Your task to perform on an android device: Open calendar and show me the third week of next month Image 0: 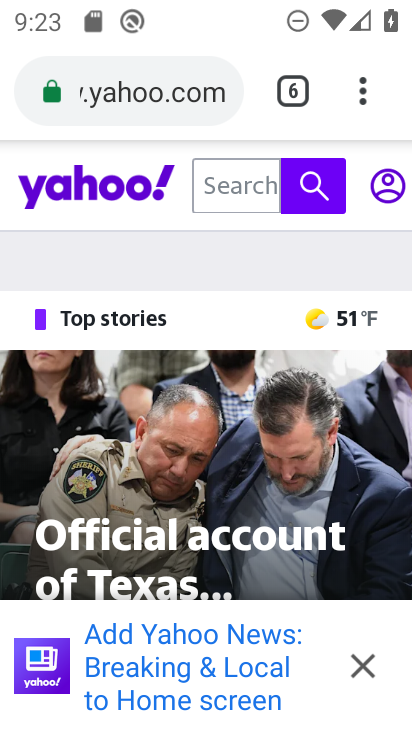
Step 0: press home button
Your task to perform on an android device: Open calendar and show me the third week of next month Image 1: 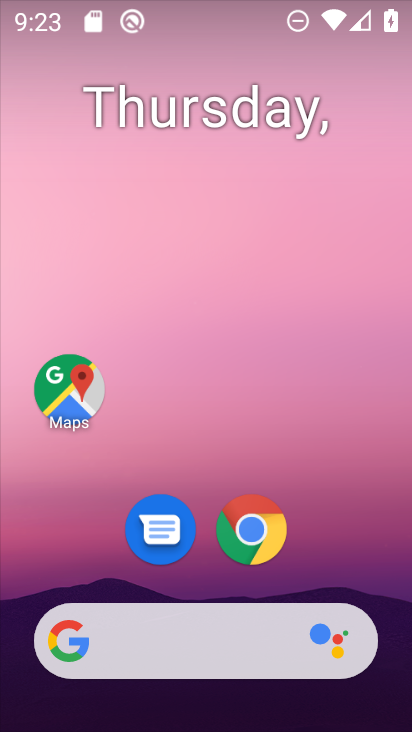
Step 1: drag from (220, 718) to (217, 135)
Your task to perform on an android device: Open calendar and show me the third week of next month Image 2: 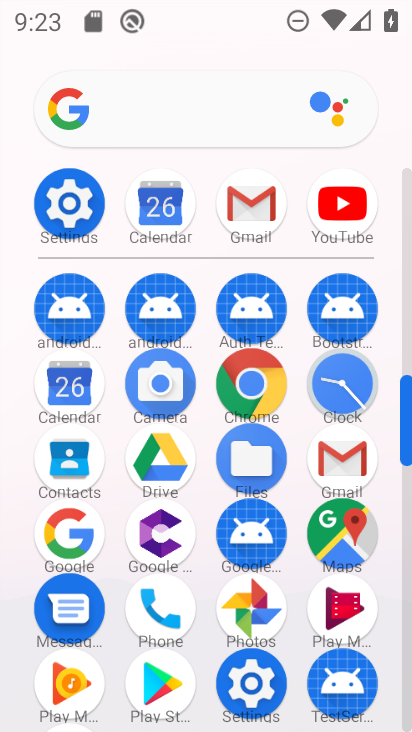
Step 2: click (74, 385)
Your task to perform on an android device: Open calendar and show me the third week of next month Image 3: 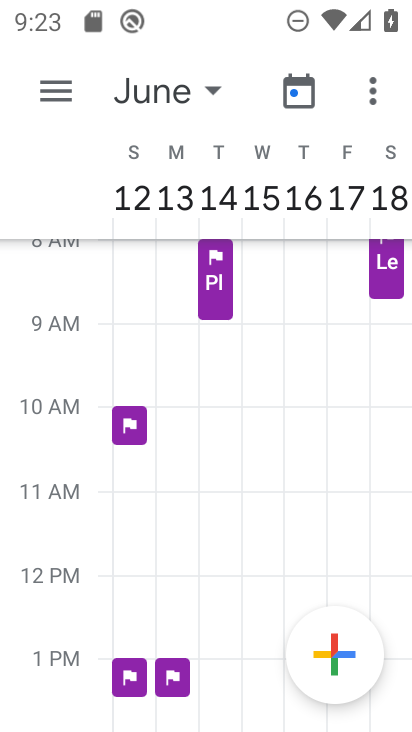
Step 3: click (209, 85)
Your task to perform on an android device: Open calendar and show me the third week of next month Image 4: 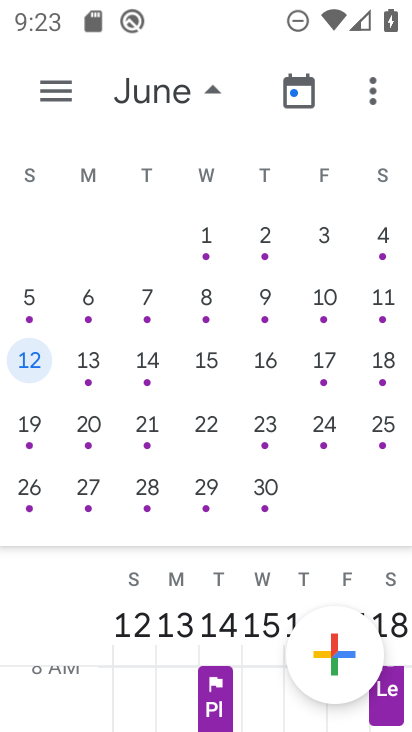
Step 4: click (87, 414)
Your task to perform on an android device: Open calendar and show me the third week of next month Image 5: 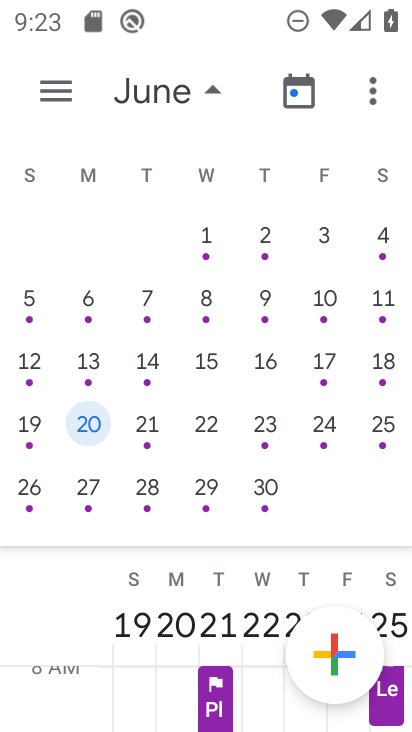
Step 5: click (53, 81)
Your task to perform on an android device: Open calendar and show me the third week of next month Image 6: 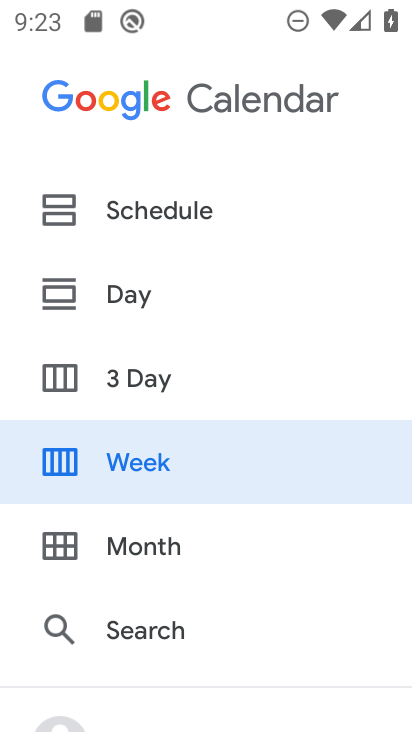
Step 6: click (143, 473)
Your task to perform on an android device: Open calendar and show me the third week of next month Image 7: 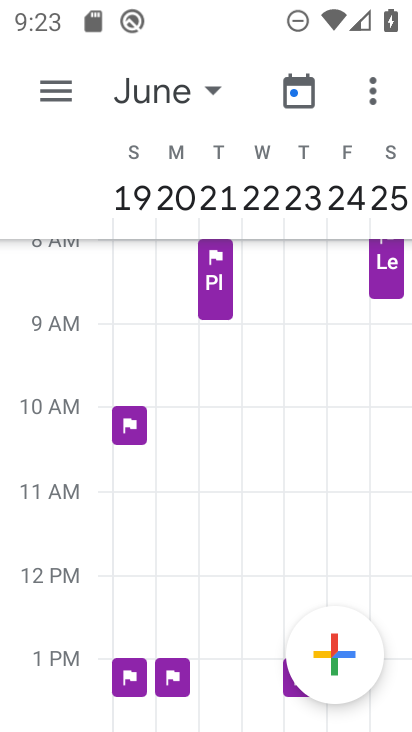
Step 7: task complete